Your task to perform on an android device: Open the stopwatch Image 0: 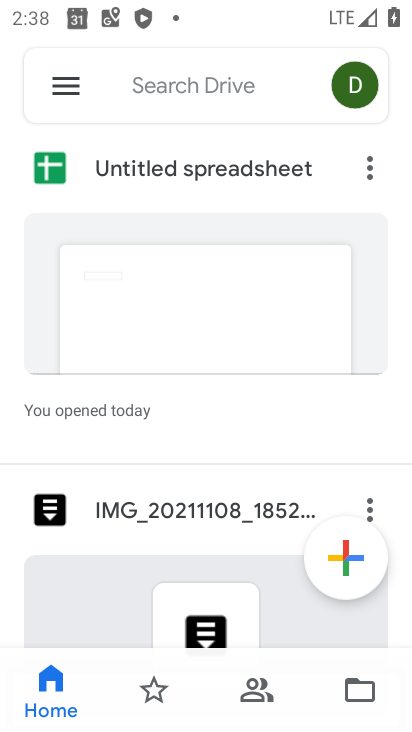
Step 0: press home button
Your task to perform on an android device: Open the stopwatch Image 1: 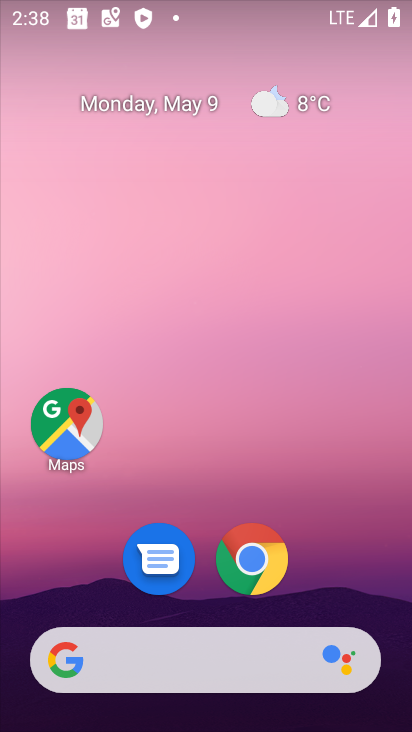
Step 1: drag from (332, 524) to (206, 17)
Your task to perform on an android device: Open the stopwatch Image 2: 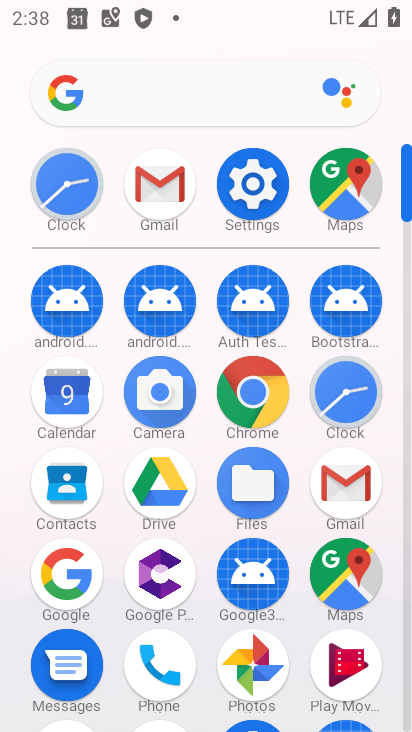
Step 2: click (349, 384)
Your task to perform on an android device: Open the stopwatch Image 3: 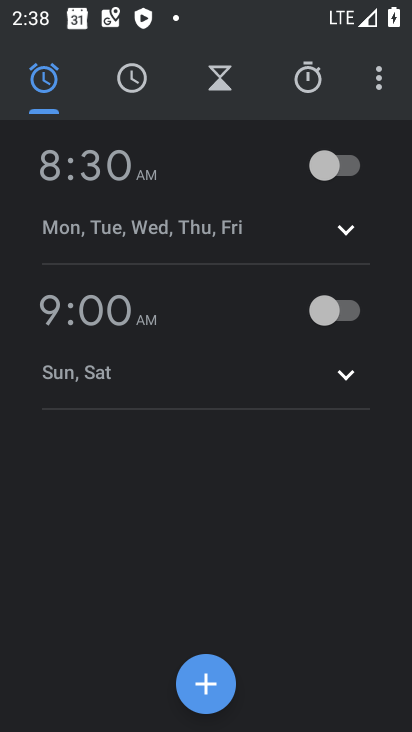
Step 3: click (311, 77)
Your task to perform on an android device: Open the stopwatch Image 4: 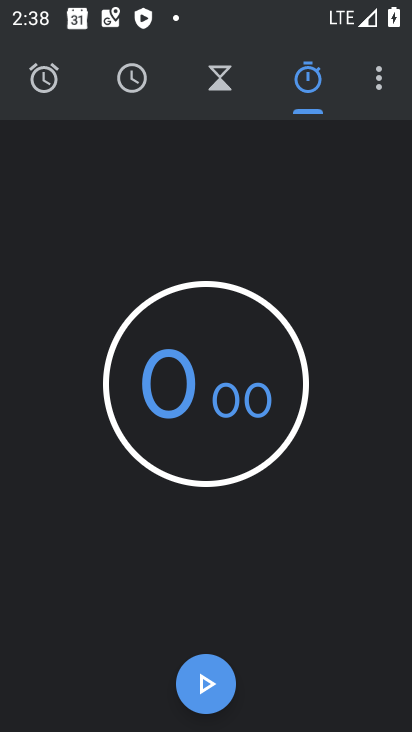
Step 4: task complete